Your task to perform on an android device: Open Amazon Image 0: 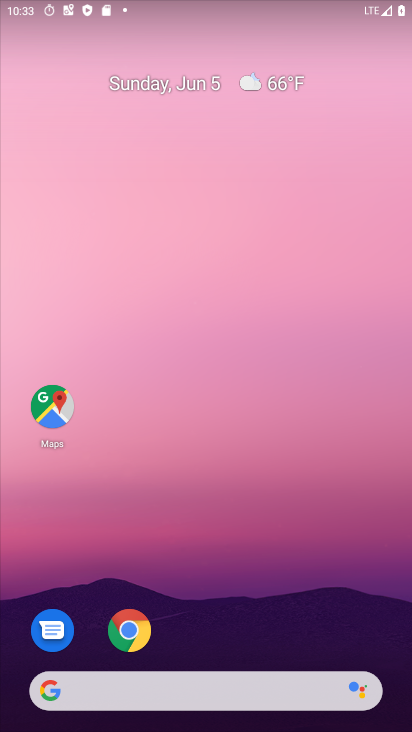
Step 0: click (127, 631)
Your task to perform on an android device: Open Amazon Image 1: 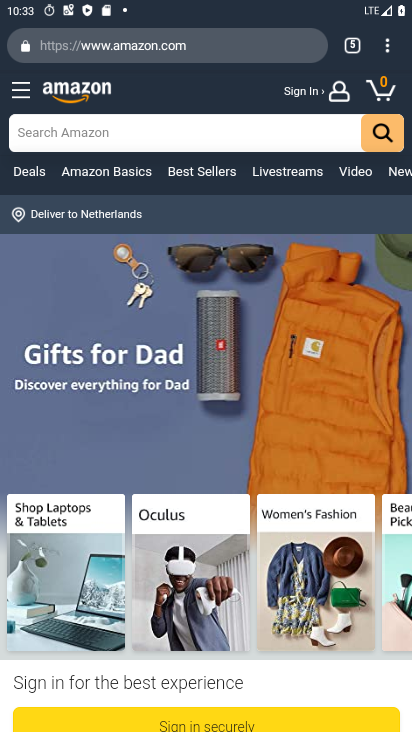
Step 1: task complete